Your task to perform on an android device: Search for seafood restaurants on Google Maps Image 0: 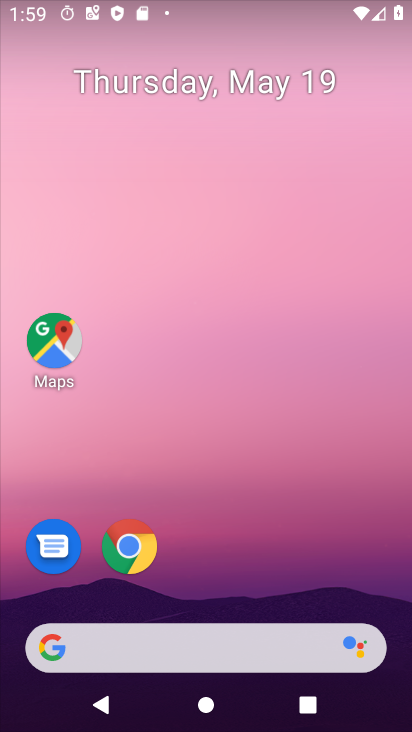
Step 0: click (40, 358)
Your task to perform on an android device: Search for seafood restaurants on Google Maps Image 1: 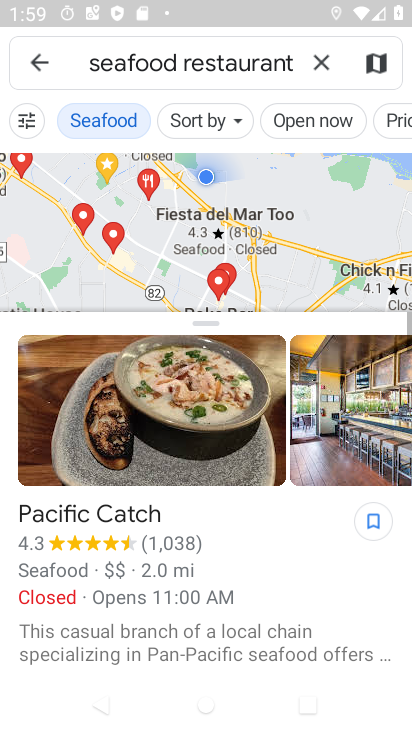
Step 1: task complete